Your task to perform on an android device: star an email in the gmail app Image 0: 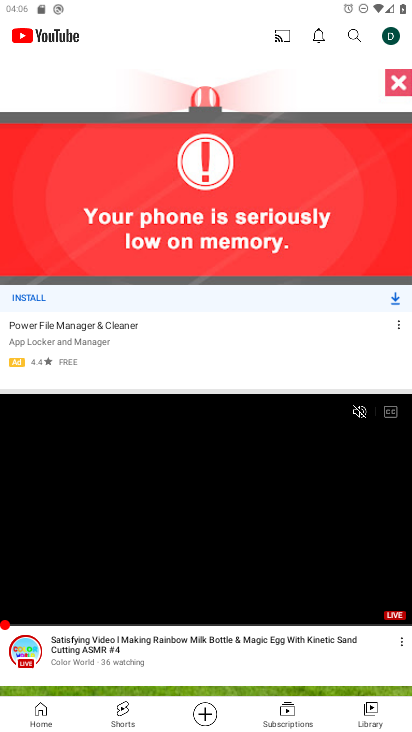
Step 0: press home button
Your task to perform on an android device: star an email in the gmail app Image 1: 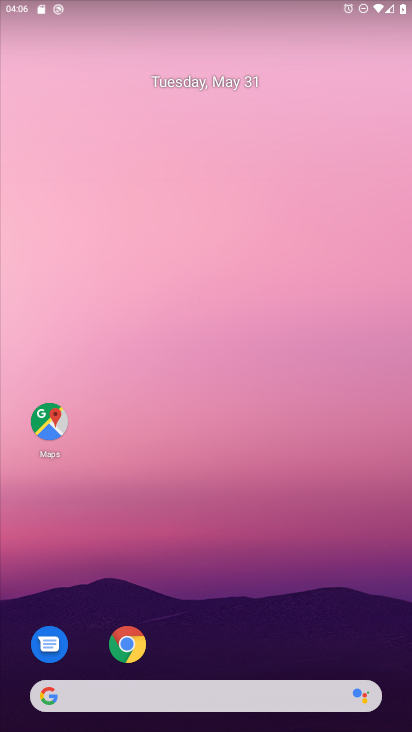
Step 1: drag from (282, 478) to (239, 112)
Your task to perform on an android device: star an email in the gmail app Image 2: 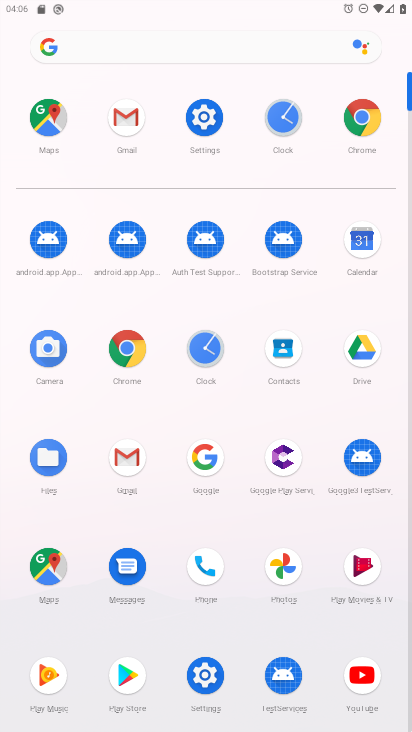
Step 2: click (126, 117)
Your task to perform on an android device: star an email in the gmail app Image 3: 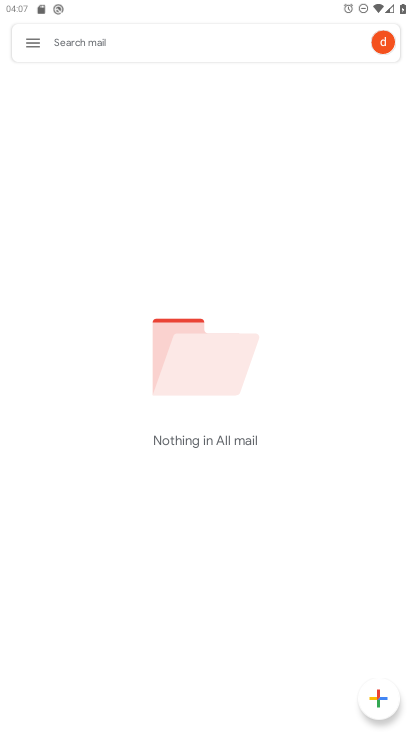
Step 3: task complete